Your task to perform on an android device: change the clock display to analog Image 0: 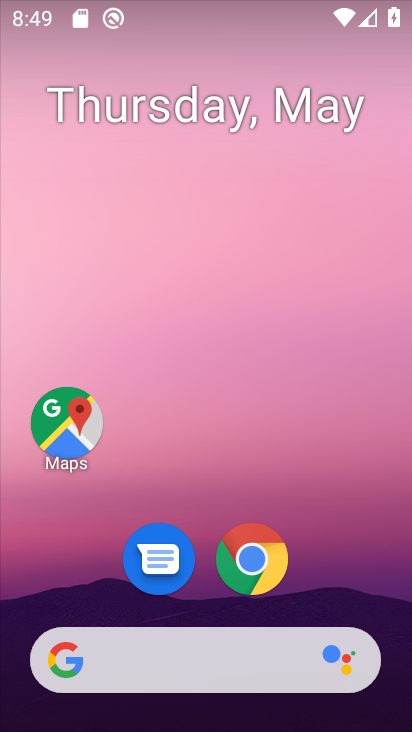
Step 0: drag from (61, 593) to (185, 127)
Your task to perform on an android device: change the clock display to analog Image 1: 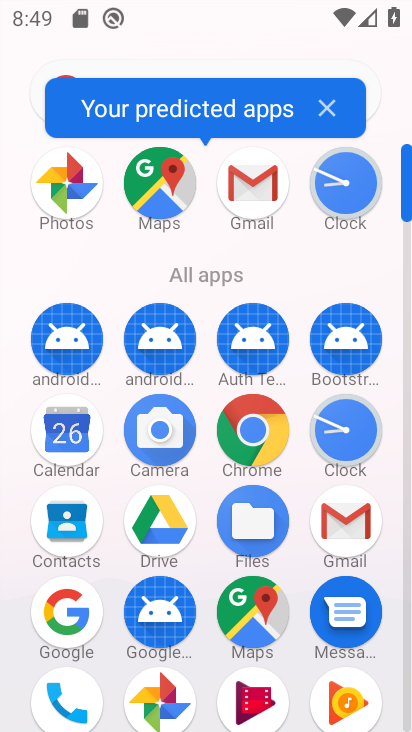
Step 1: click (340, 430)
Your task to perform on an android device: change the clock display to analog Image 2: 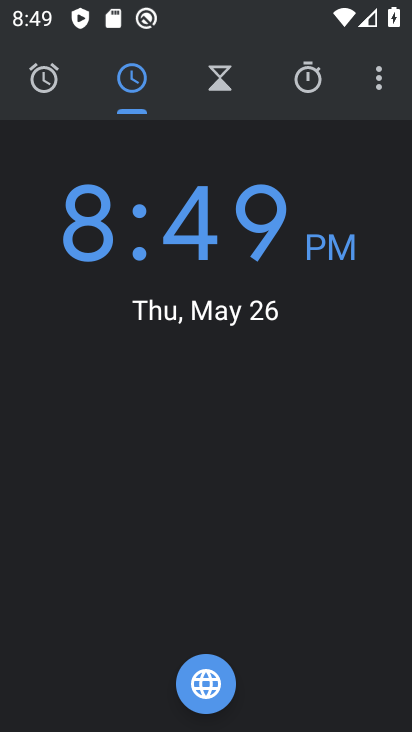
Step 2: click (379, 76)
Your task to perform on an android device: change the clock display to analog Image 3: 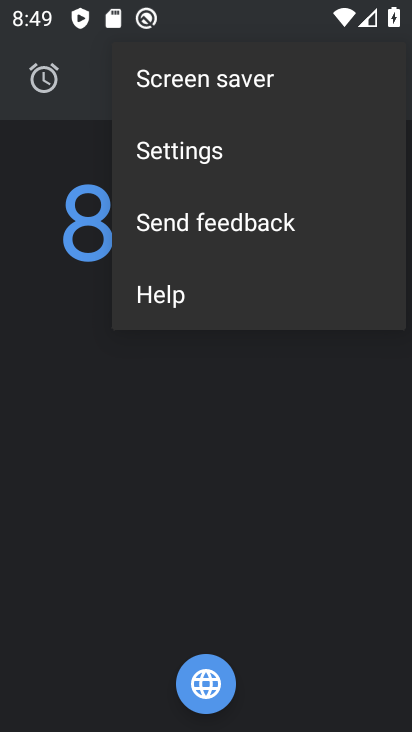
Step 3: click (304, 169)
Your task to perform on an android device: change the clock display to analog Image 4: 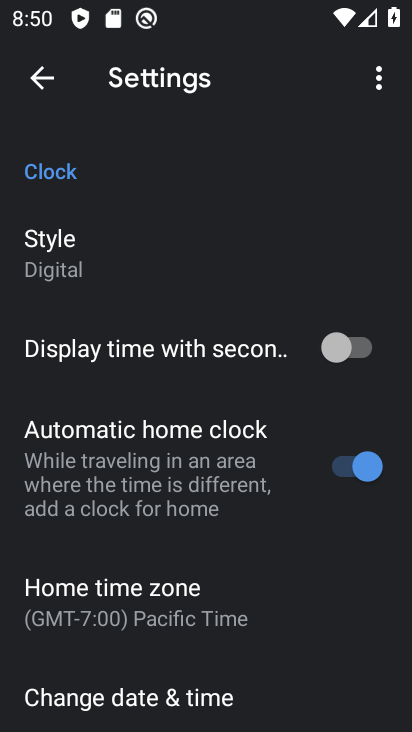
Step 4: click (161, 245)
Your task to perform on an android device: change the clock display to analog Image 5: 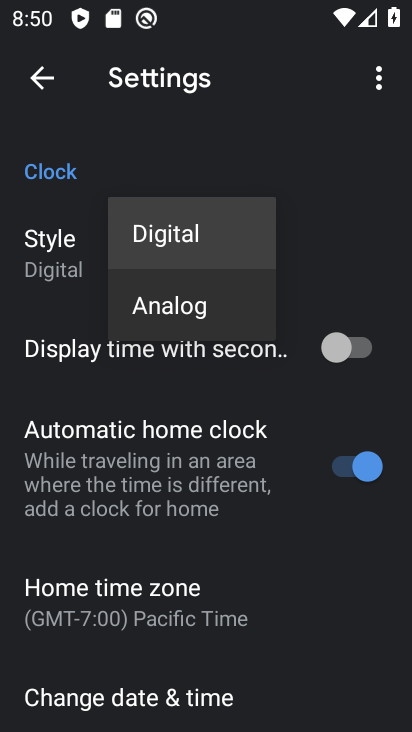
Step 5: click (196, 301)
Your task to perform on an android device: change the clock display to analog Image 6: 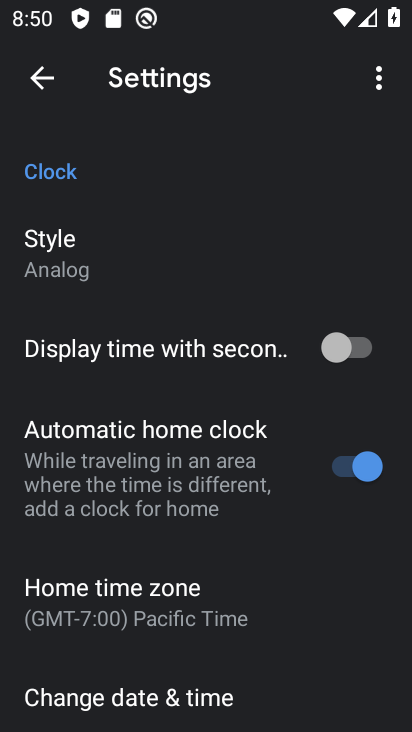
Step 6: task complete